Your task to perform on an android device: Open Chrome and go to settings Image 0: 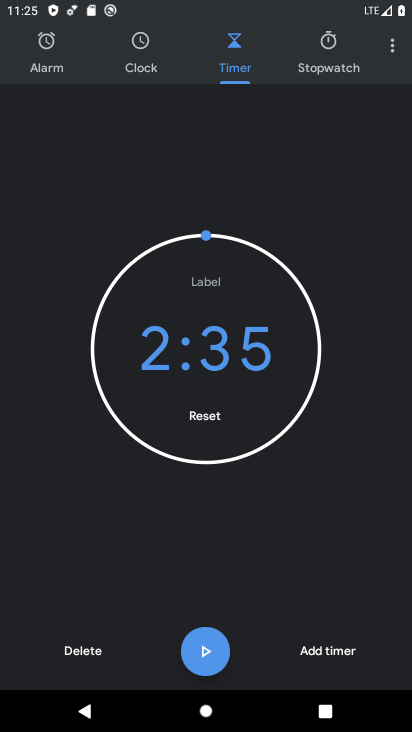
Step 0: press home button
Your task to perform on an android device: Open Chrome and go to settings Image 1: 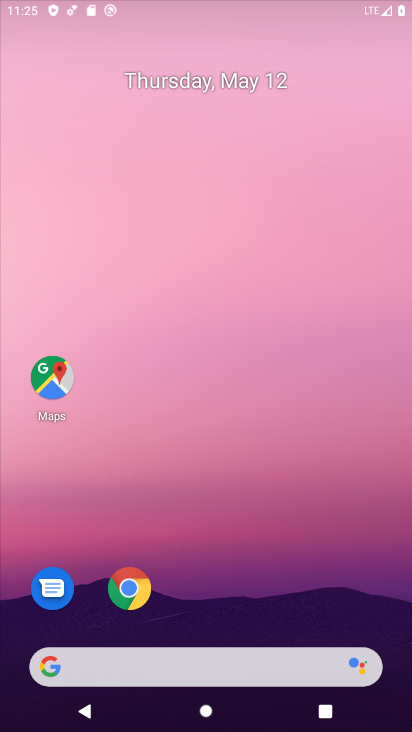
Step 1: drag from (239, 519) to (263, 76)
Your task to perform on an android device: Open Chrome and go to settings Image 2: 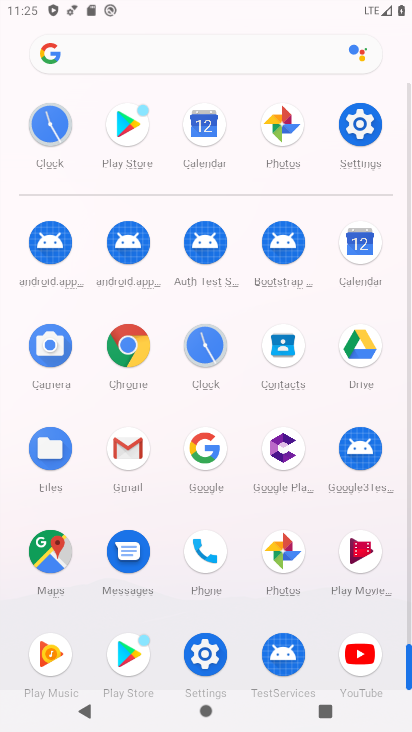
Step 2: click (125, 351)
Your task to perform on an android device: Open Chrome and go to settings Image 3: 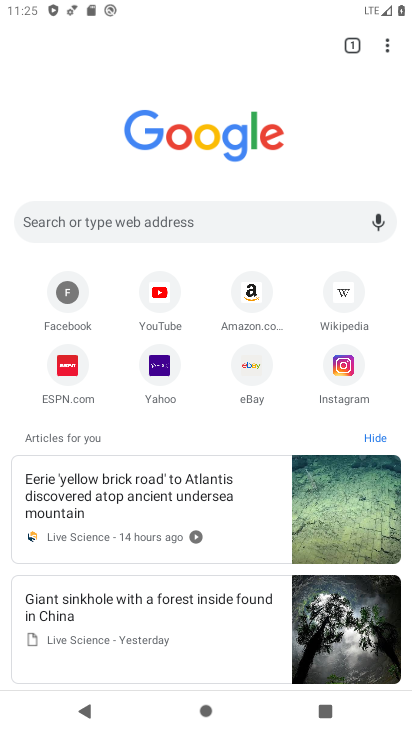
Step 3: click (385, 47)
Your task to perform on an android device: Open Chrome and go to settings Image 4: 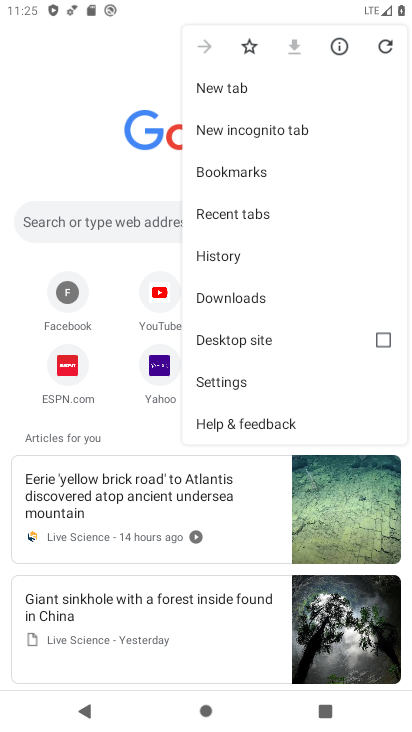
Step 4: click (247, 379)
Your task to perform on an android device: Open Chrome and go to settings Image 5: 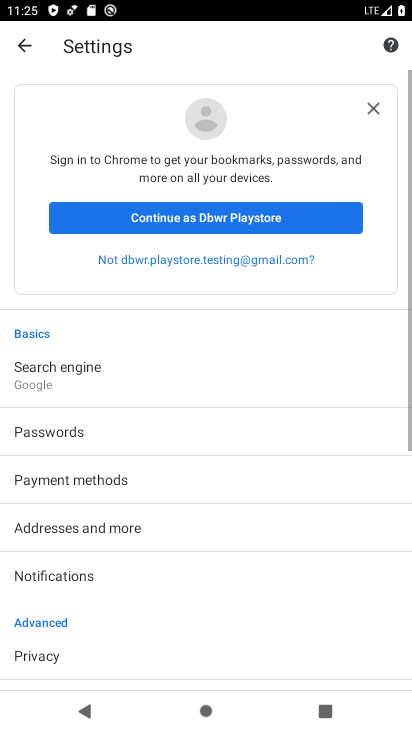
Step 5: task complete